Your task to perform on an android device: Open Android settings Image 0: 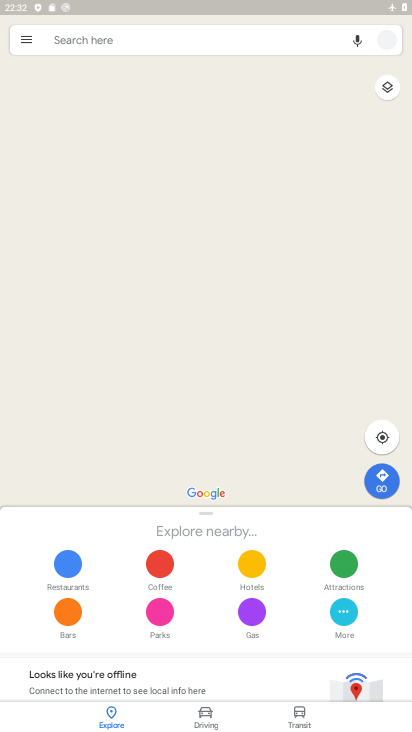
Step 0: press home button
Your task to perform on an android device: Open Android settings Image 1: 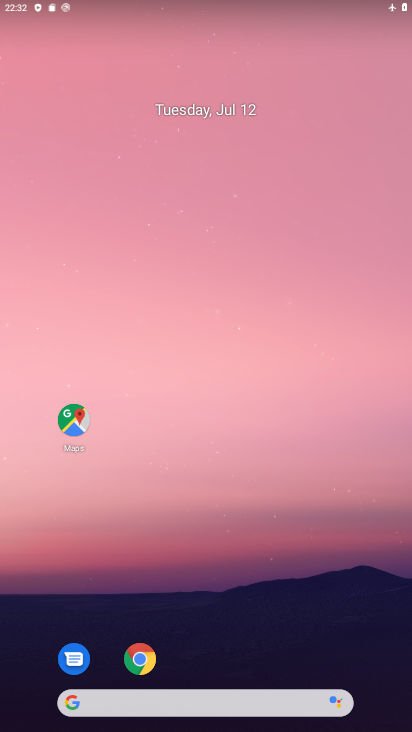
Step 1: drag from (222, 669) to (213, 346)
Your task to perform on an android device: Open Android settings Image 2: 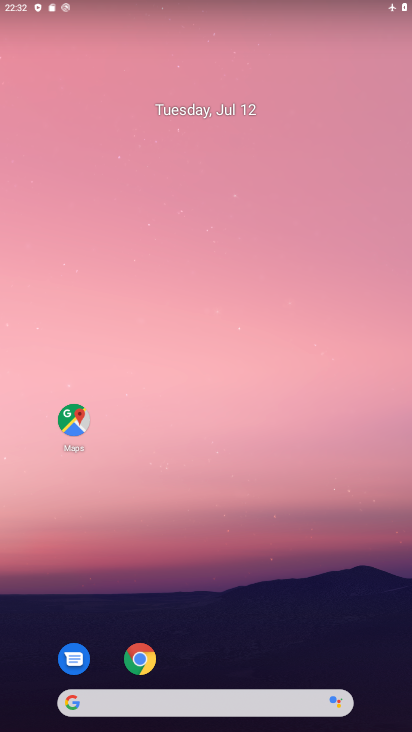
Step 2: drag from (177, 615) to (192, 184)
Your task to perform on an android device: Open Android settings Image 3: 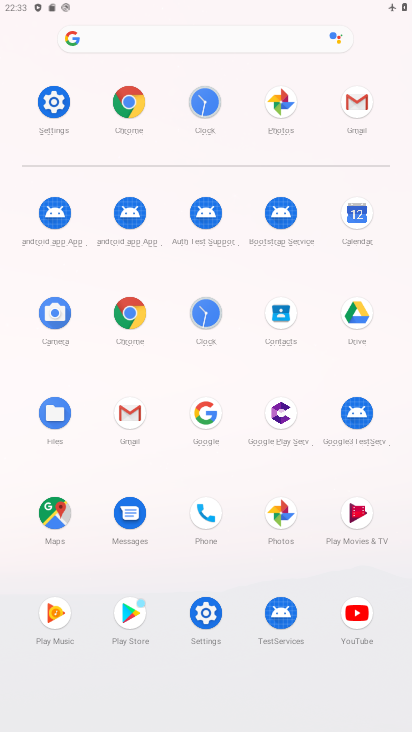
Step 3: click (50, 94)
Your task to perform on an android device: Open Android settings Image 4: 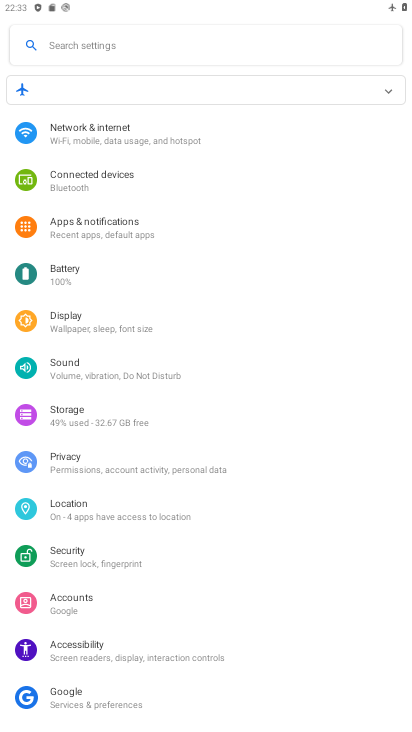
Step 4: task complete